Your task to perform on an android device: toggle location history Image 0: 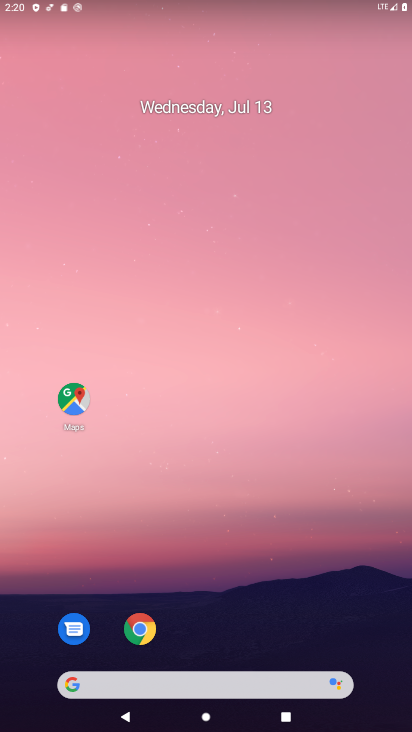
Step 0: drag from (297, 591) to (312, 195)
Your task to perform on an android device: toggle location history Image 1: 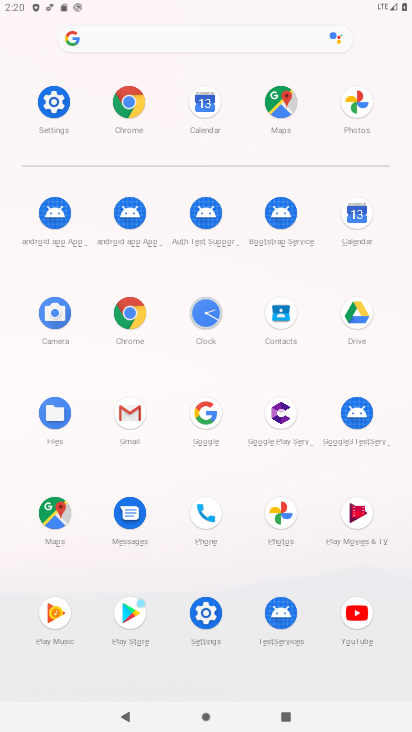
Step 1: click (64, 127)
Your task to perform on an android device: toggle location history Image 2: 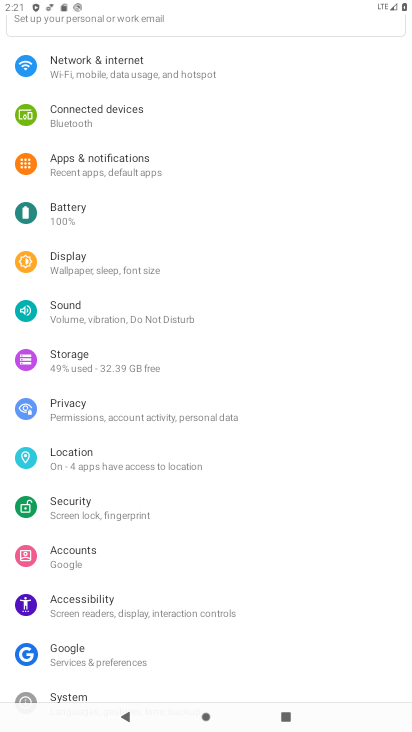
Step 2: click (185, 95)
Your task to perform on an android device: toggle location history Image 3: 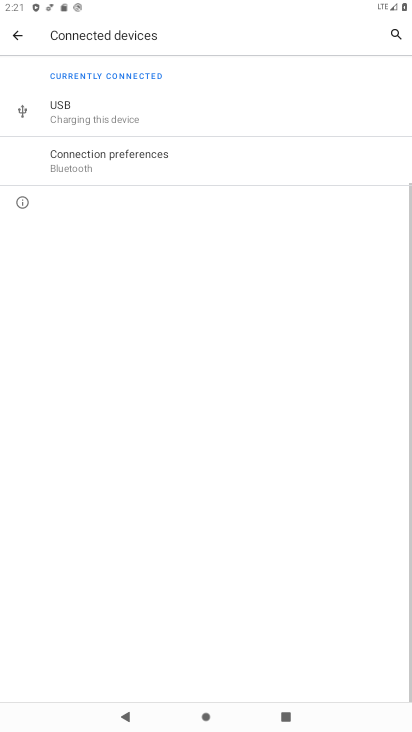
Step 3: click (11, 42)
Your task to perform on an android device: toggle location history Image 4: 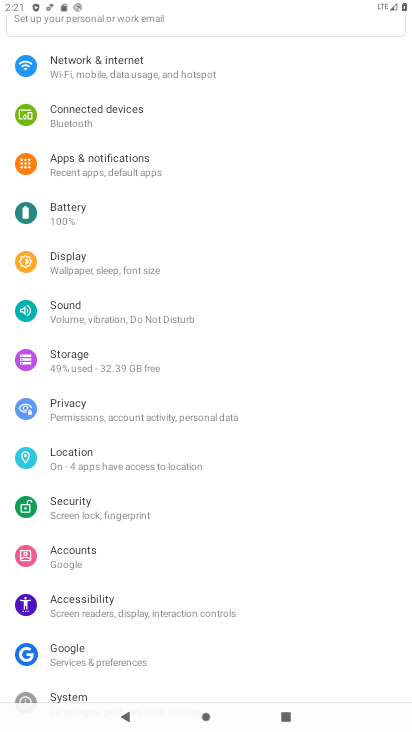
Step 4: click (151, 477)
Your task to perform on an android device: toggle location history Image 5: 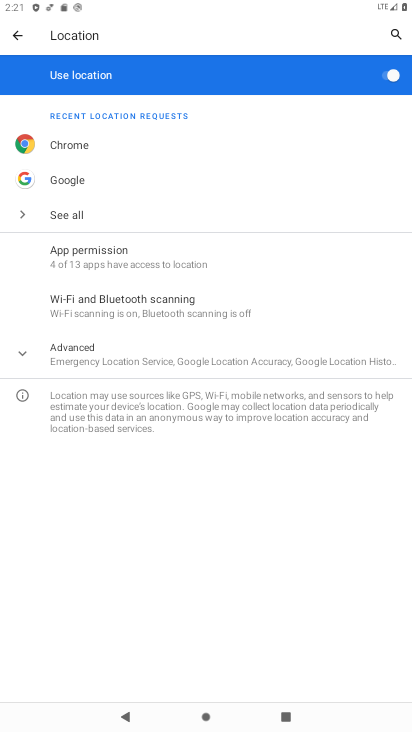
Step 5: click (113, 342)
Your task to perform on an android device: toggle location history Image 6: 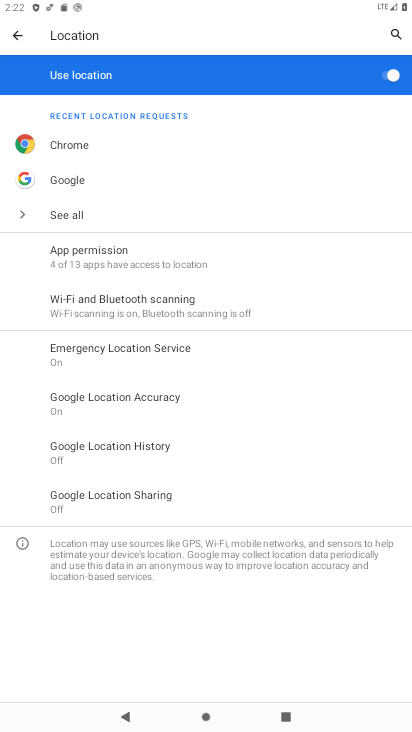
Step 6: click (163, 443)
Your task to perform on an android device: toggle location history Image 7: 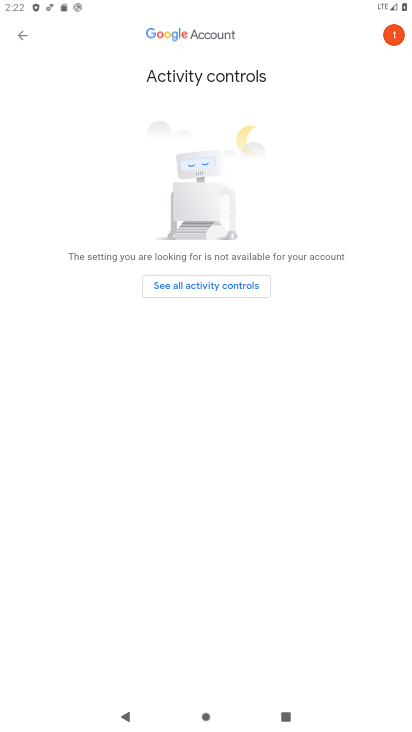
Step 7: task complete